Your task to perform on an android device: Go to privacy settings Image 0: 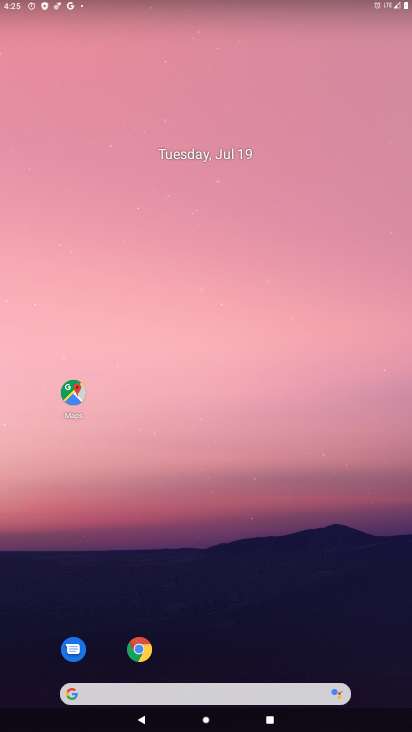
Step 0: drag from (331, 624) to (277, 226)
Your task to perform on an android device: Go to privacy settings Image 1: 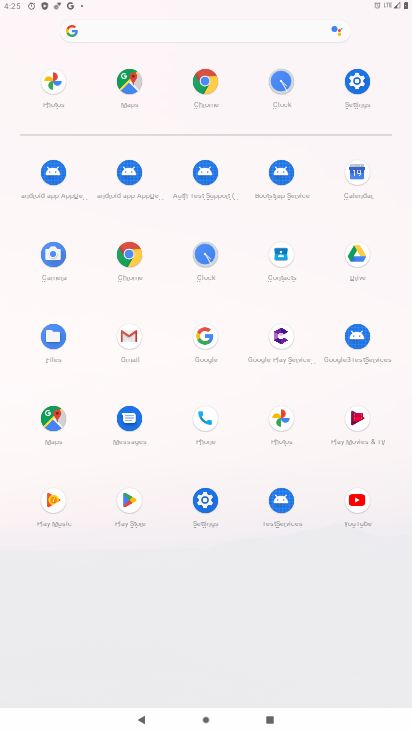
Step 1: click (364, 82)
Your task to perform on an android device: Go to privacy settings Image 2: 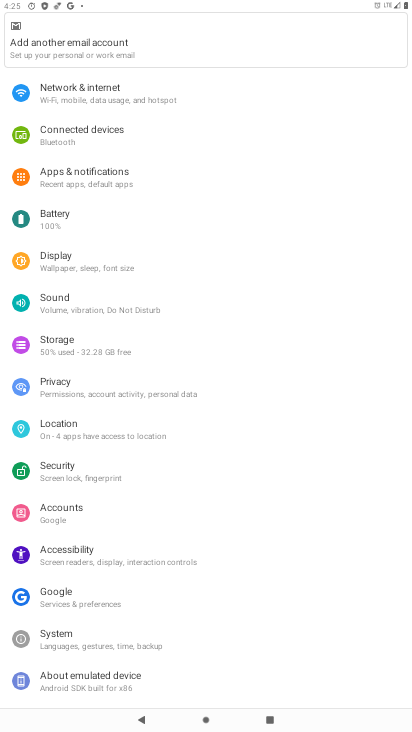
Step 2: click (117, 389)
Your task to perform on an android device: Go to privacy settings Image 3: 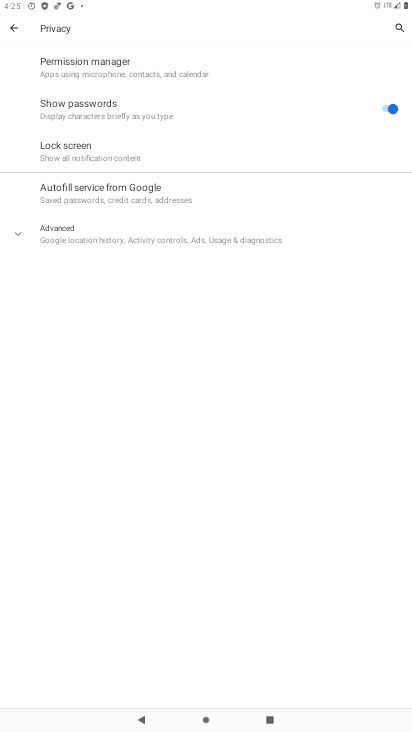
Step 3: task complete